Your task to perform on an android device: Open maps Image 0: 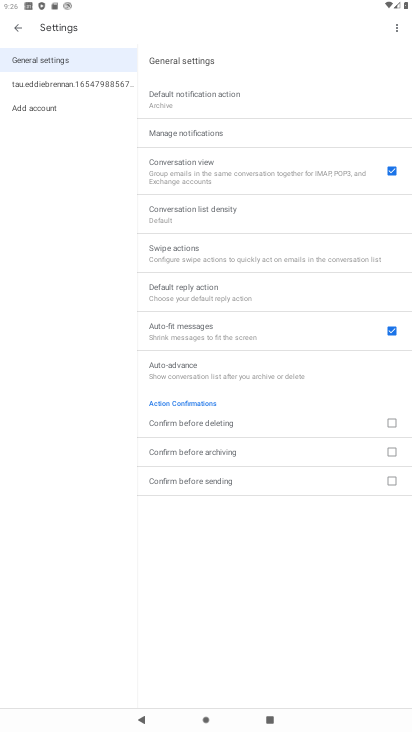
Step 0: press home button
Your task to perform on an android device: Open maps Image 1: 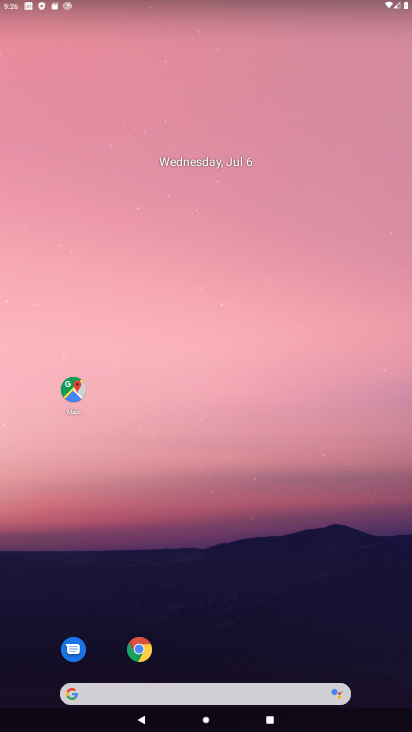
Step 1: click (69, 385)
Your task to perform on an android device: Open maps Image 2: 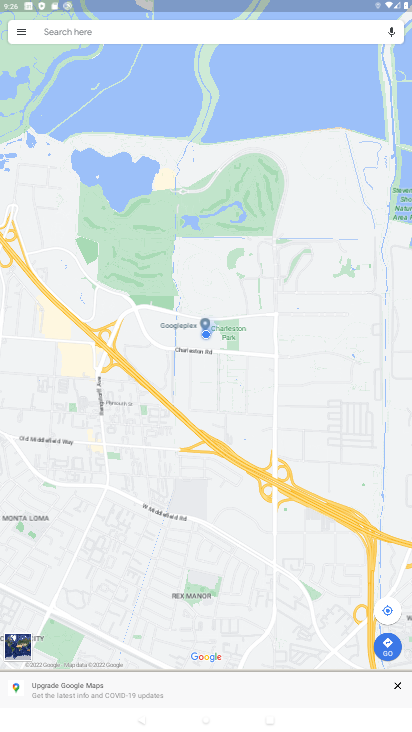
Step 2: task complete